Your task to perform on an android device: open app "Grab" Image 0: 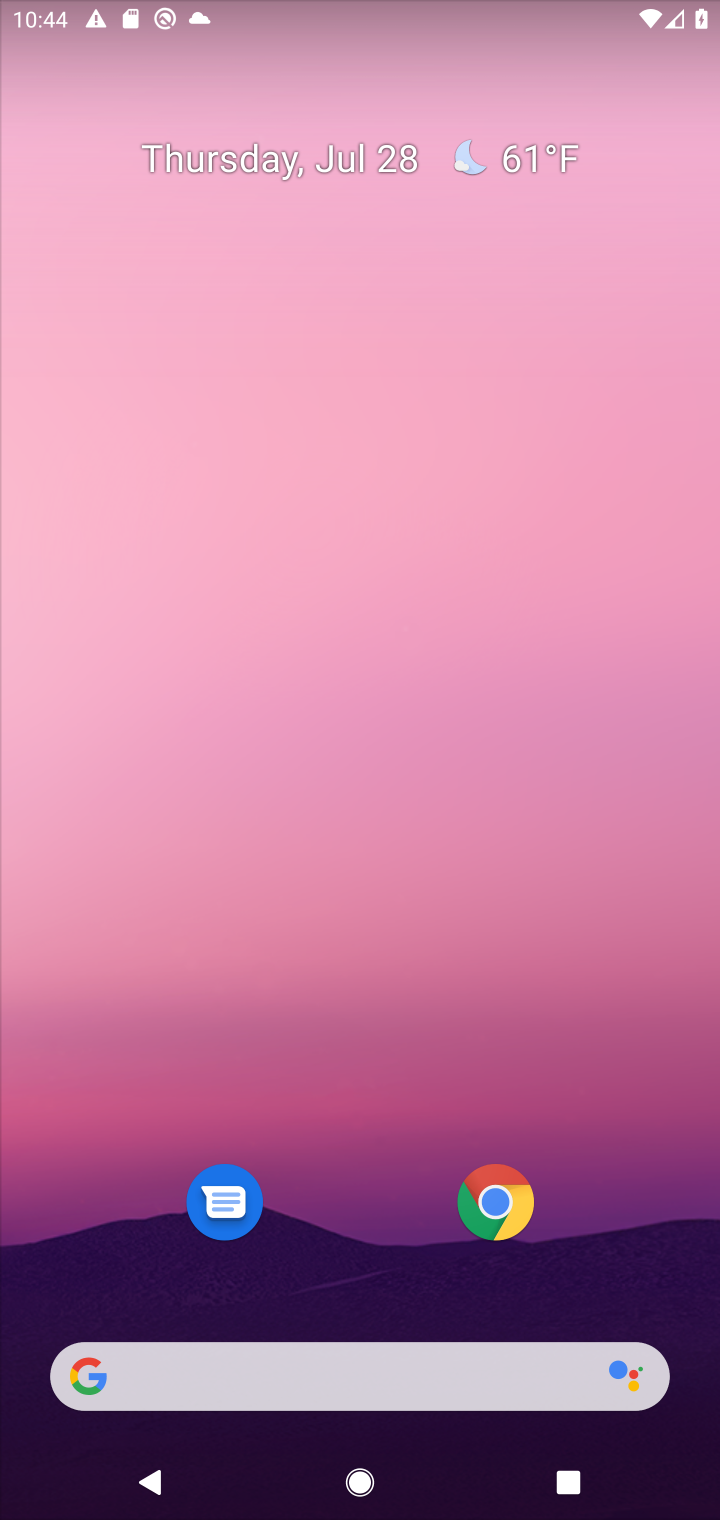
Step 0: click (357, 1367)
Your task to perform on an android device: open app "Grab" Image 1: 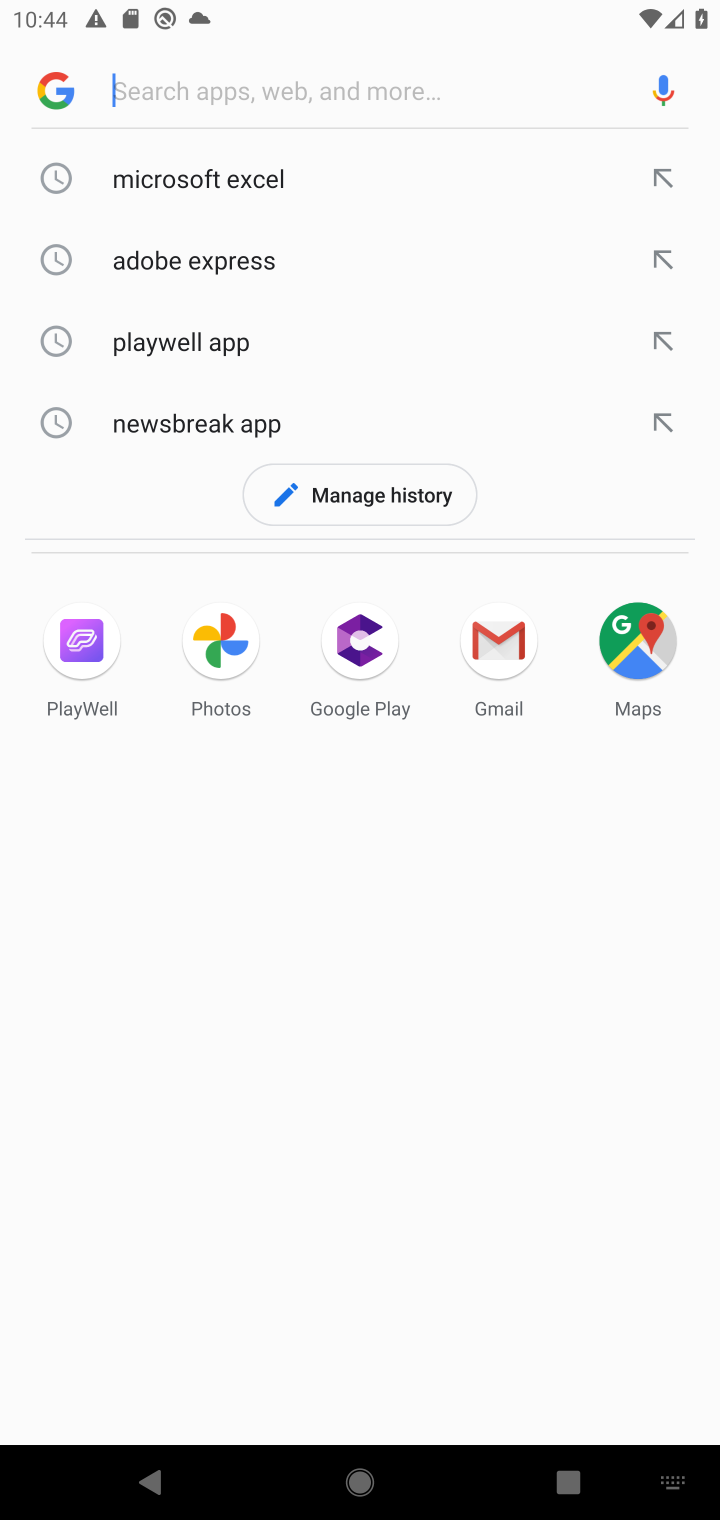
Step 1: type "grab"
Your task to perform on an android device: open app "Grab" Image 2: 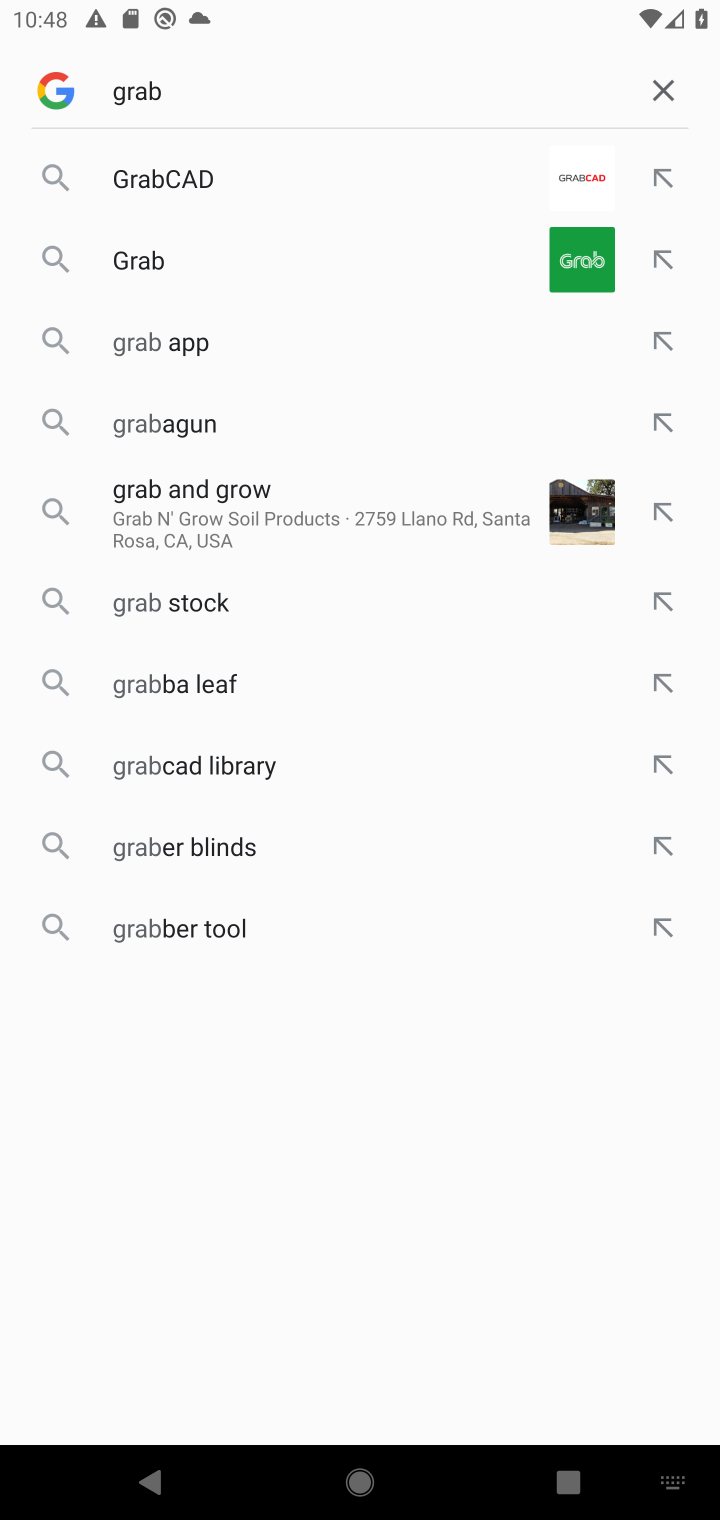
Step 2: click (657, 271)
Your task to perform on an android device: open app "Grab" Image 3: 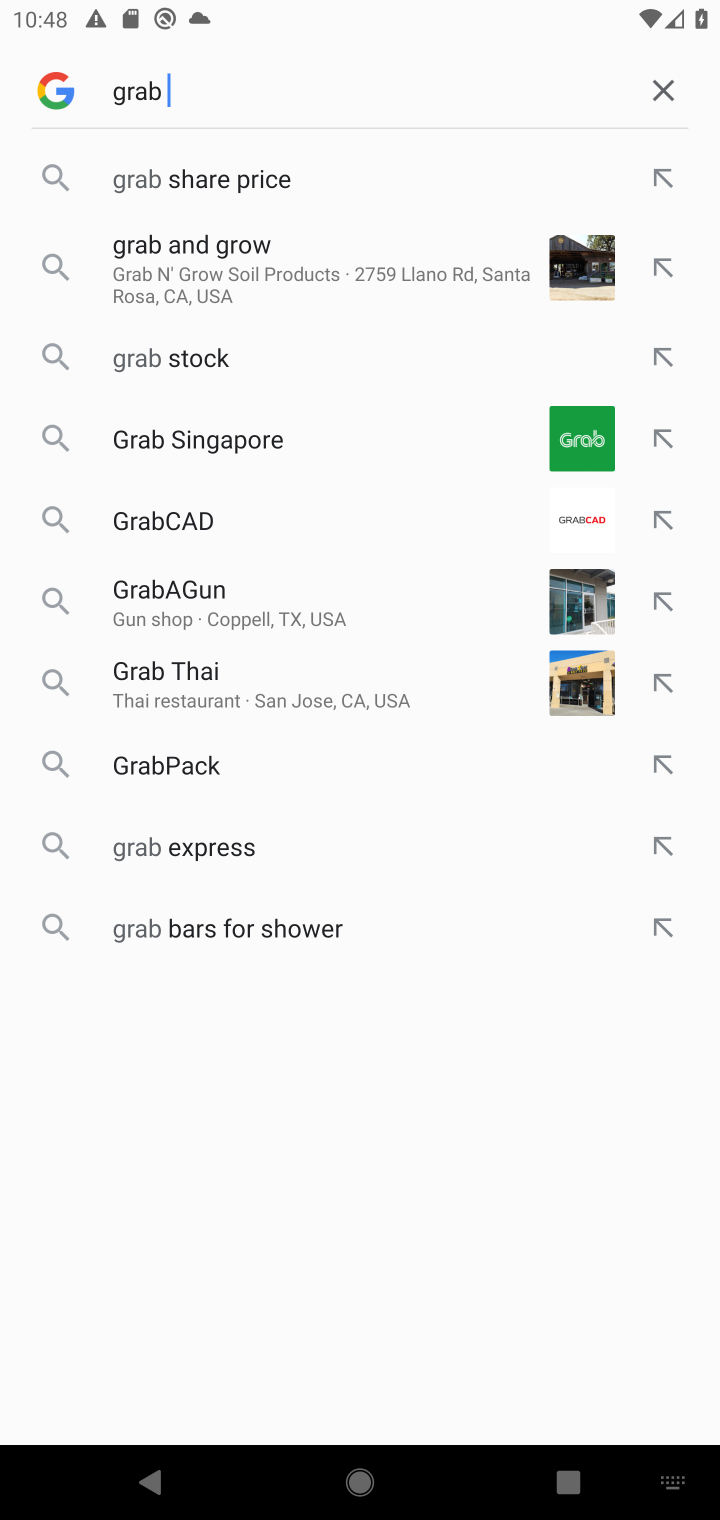
Step 3: task complete